Your task to perform on an android device: Toggle the flashlight Image 0: 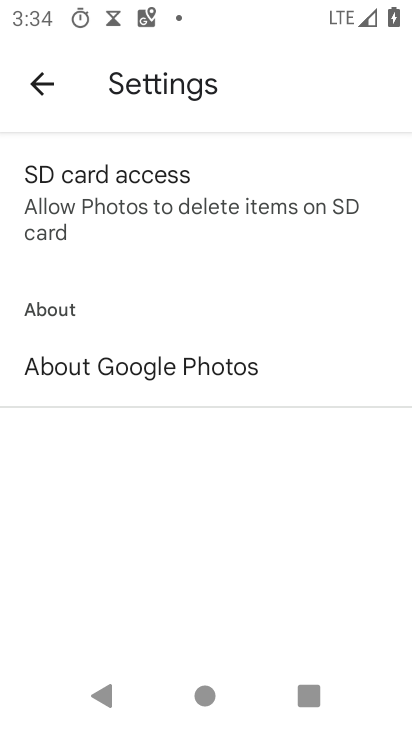
Step 0: press home button
Your task to perform on an android device: Toggle the flashlight Image 1: 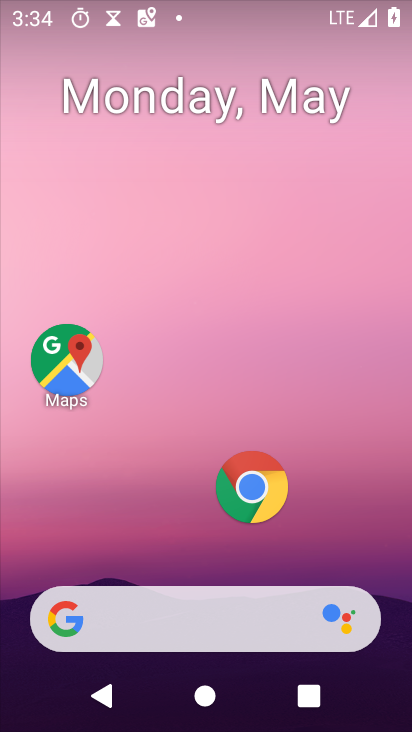
Step 1: drag from (192, 562) to (183, 110)
Your task to perform on an android device: Toggle the flashlight Image 2: 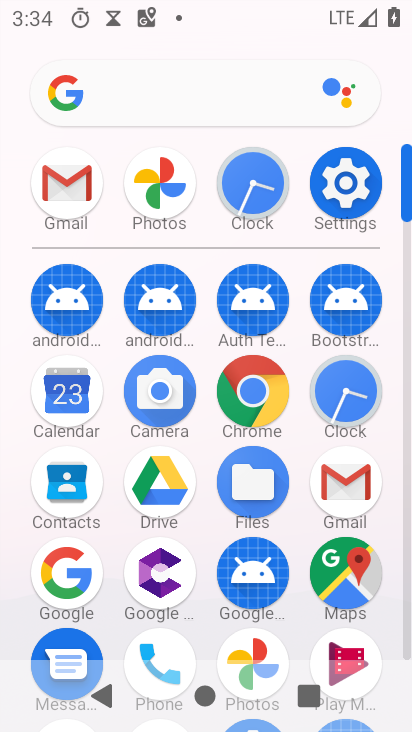
Step 2: click (346, 186)
Your task to perform on an android device: Toggle the flashlight Image 3: 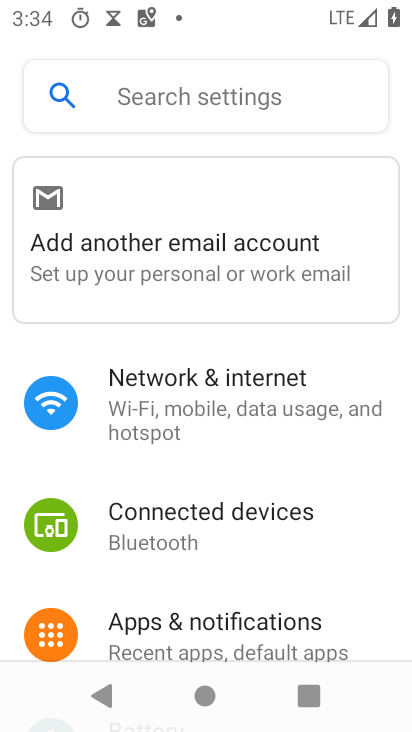
Step 3: task complete